Your task to perform on an android device: refresh tabs in the chrome app Image 0: 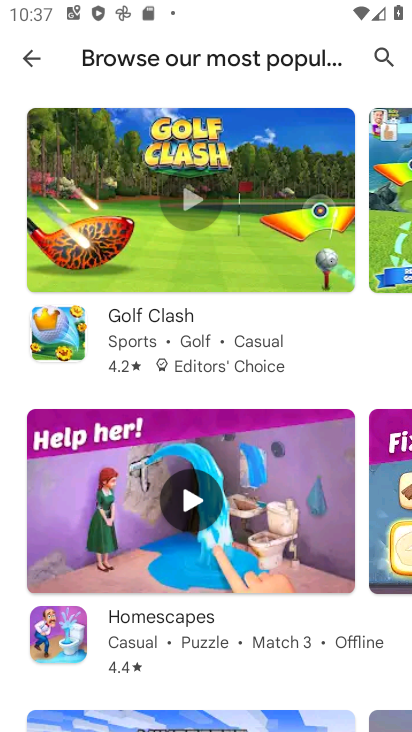
Step 0: press home button
Your task to perform on an android device: refresh tabs in the chrome app Image 1: 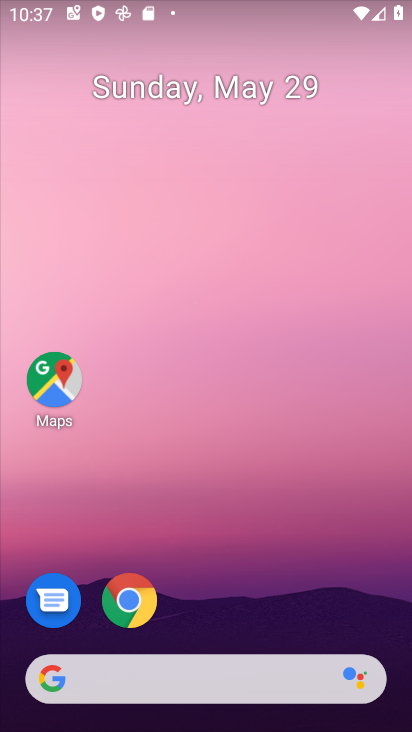
Step 1: click (132, 598)
Your task to perform on an android device: refresh tabs in the chrome app Image 2: 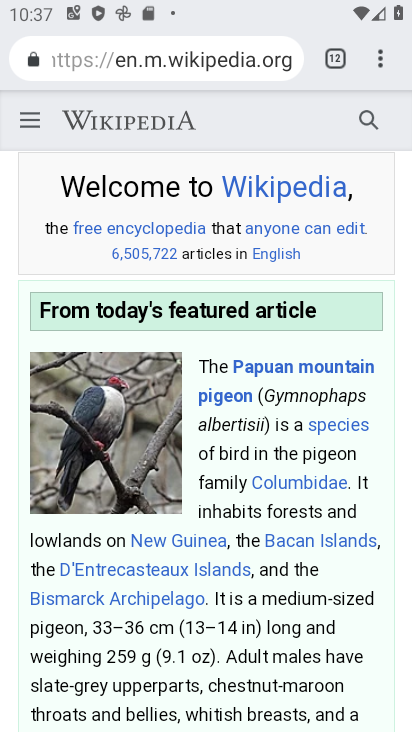
Step 2: click (378, 61)
Your task to perform on an android device: refresh tabs in the chrome app Image 3: 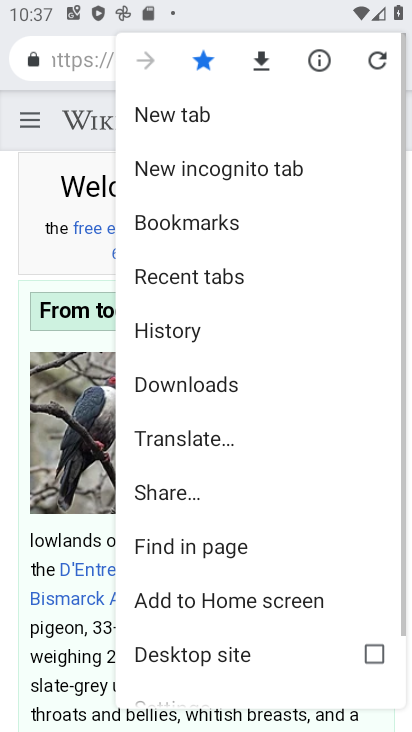
Step 3: click (378, 61)
Your task to perform on an android device: refresh tabs in the chrome app Image 4: 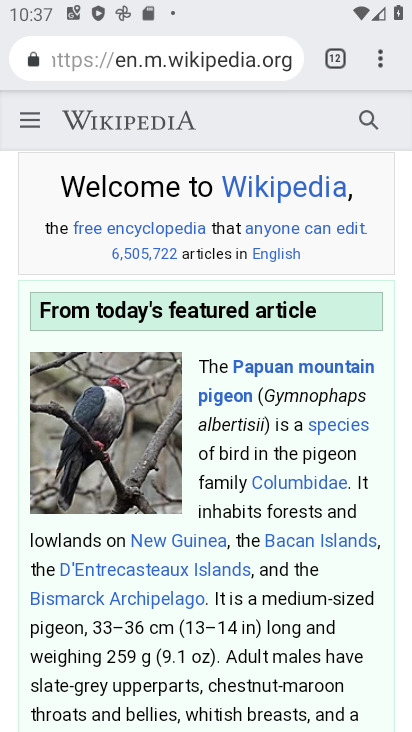
Step 4: task complete